Your task to perform on an android device: What is the recent news? Image 0: 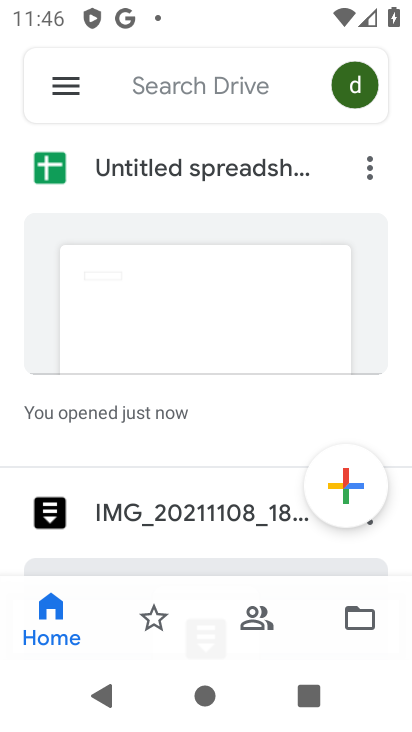
Step 0: press home button
Your task to perform on an android device: What is the recent news? Image 1: 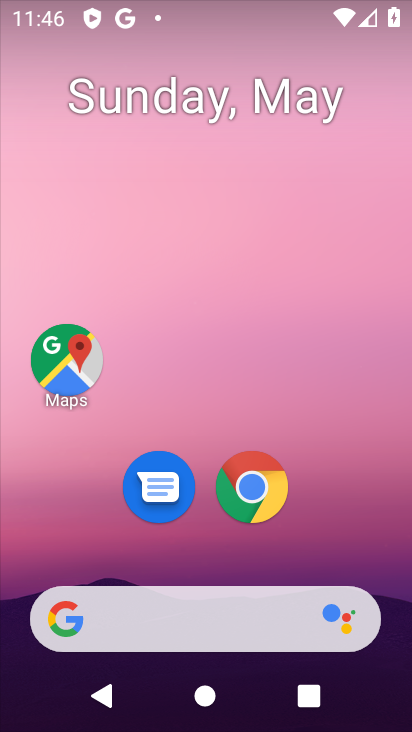
Step 1: click (197, 629)
Your task to perform on an android device: What is the recent news? Image 2: 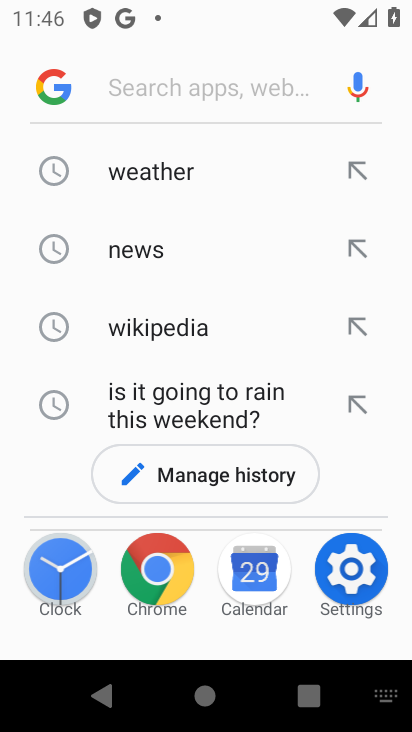
Step 2: type "what is the recent news"
Your task to perform on an android device: What is the recent news? Image 3: 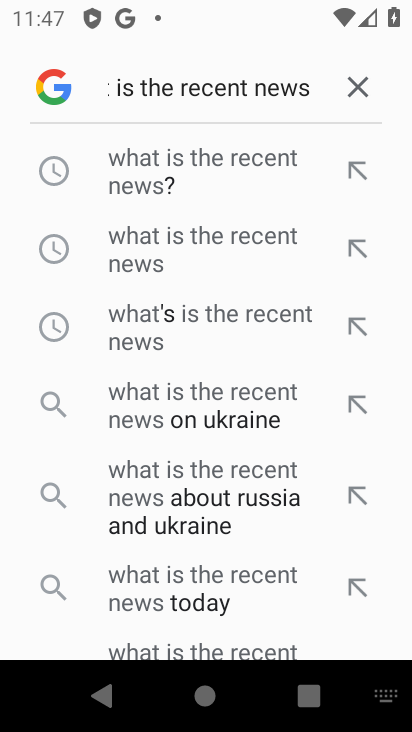
Step 3: click (109, 152)
Your task to perform on an android device: What is the recent news? Image 4: 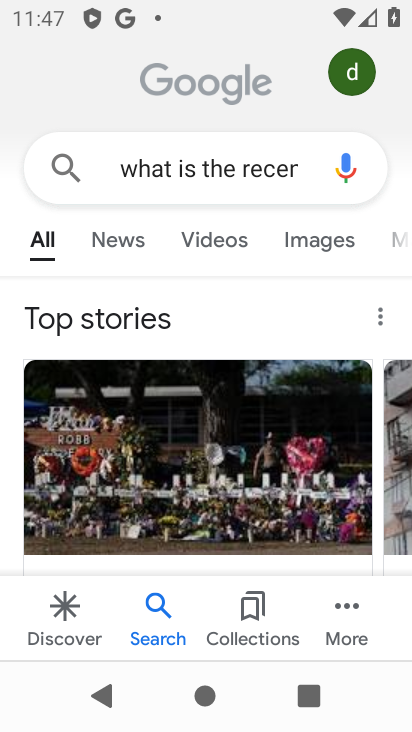
Step 4: click (133, 237)
Your task to perform on an android device: What is the recent news? Image 5: 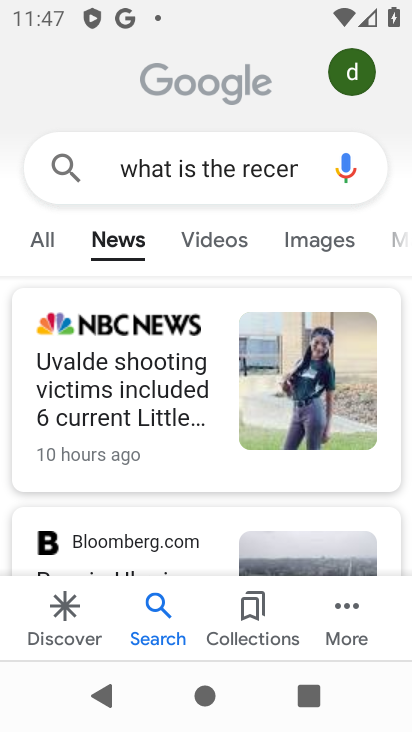
Step 5: task complete